Your task to perform on an android device: Do I have any events today? Image 0: 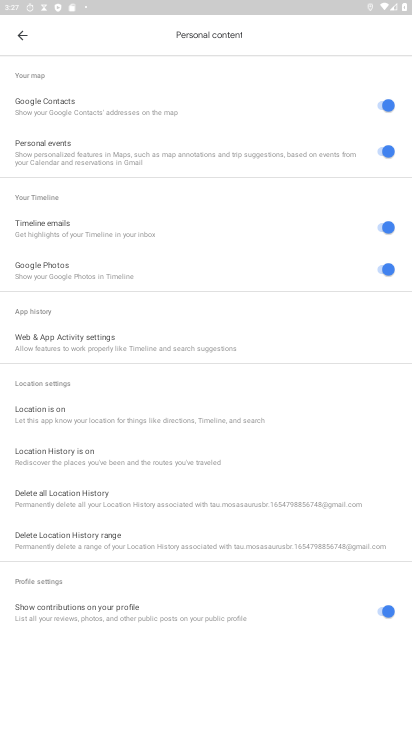
Step 0: press home button
Your task to perform on an android device: Do I have any events today? Image 1: 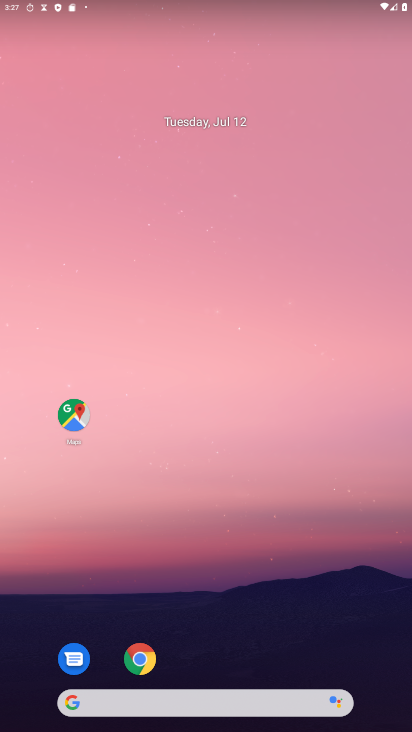
Step 1: drag from (261, 662) to (175, 181)
Your task to perform on an android device: Do I have any events today? Image 2: 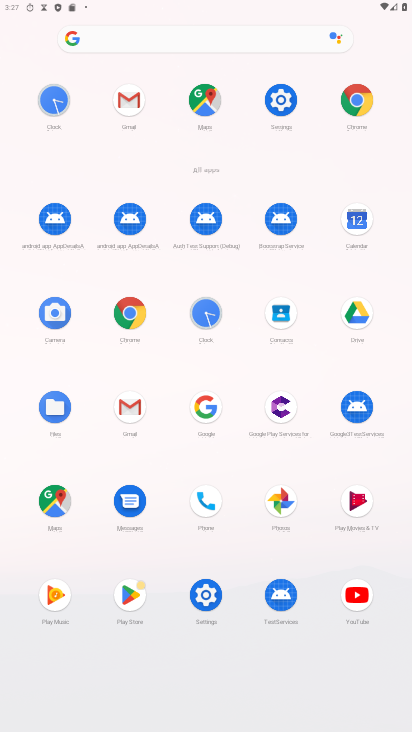
Step 2: click (364, 218)
Your task to perform on an android device: Do I have any events today? Image 3: 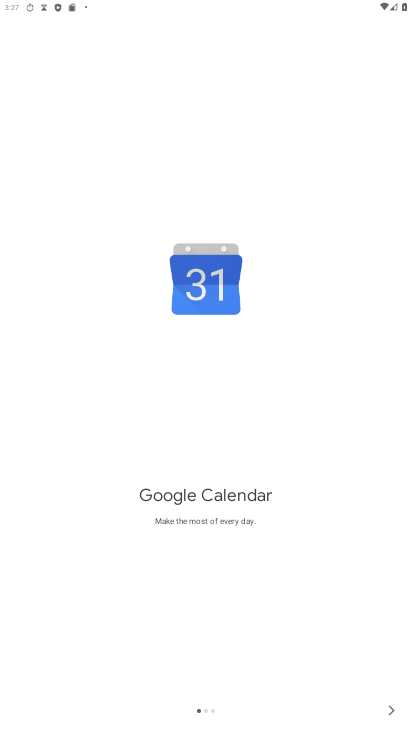
Step 3: click (390, 710)
Your task to perform on an android device: Do I have any events today? Image 4: 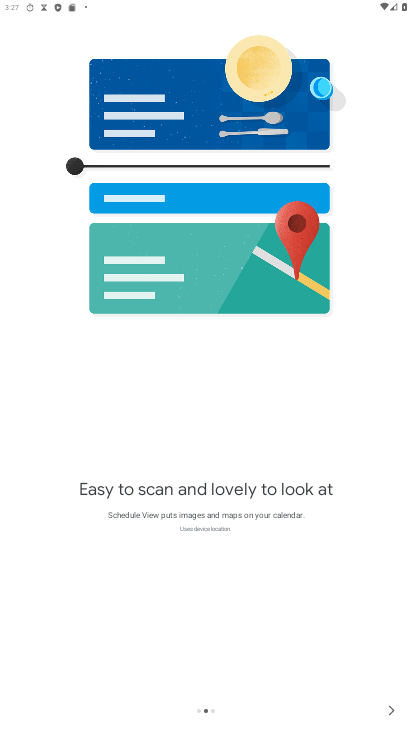
Step 4: click (390, 710)
Your task to perform on an android device: Do I have any events today? Image 5: 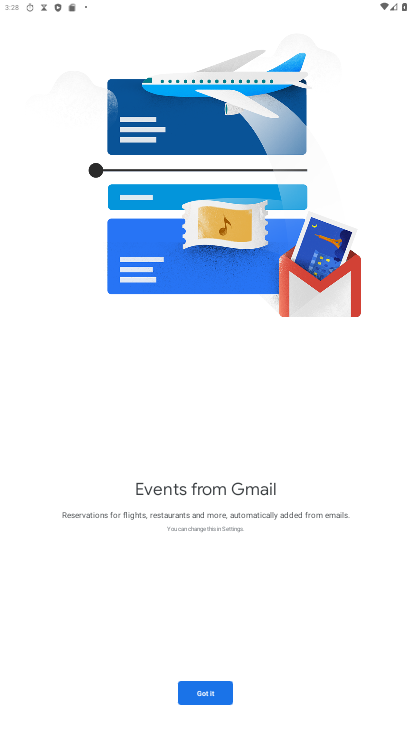
Step 5: click (204, 689)
Your task to perform on an android device: Do I have any events today? Image 6: 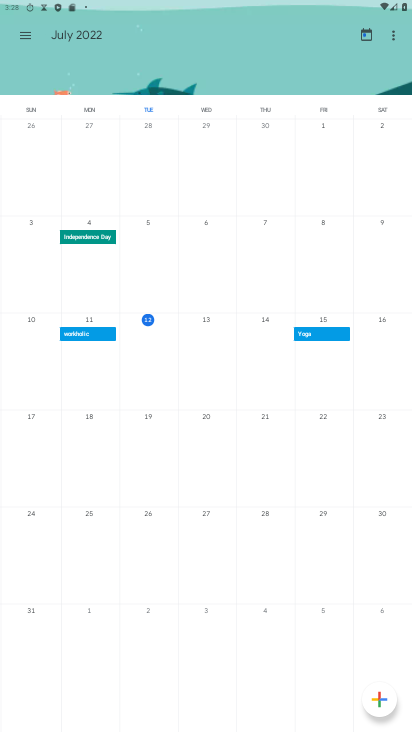
Step 6: click (27, 40)
Your task to perform on an android device: Do I have any events today? Image 7: 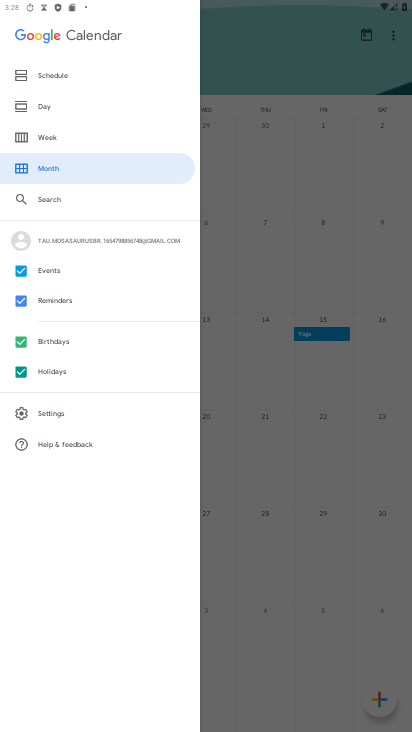
Step 7: click (18, 374)
Your task to perform on an android device: Do I have any events today? Image 8: 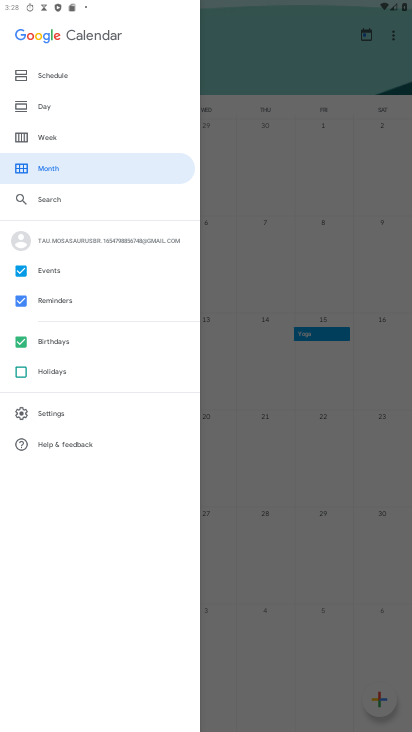
Step 8: click (20, 340)
Your task to perform on an android device: Do I have any events today? Image 9: 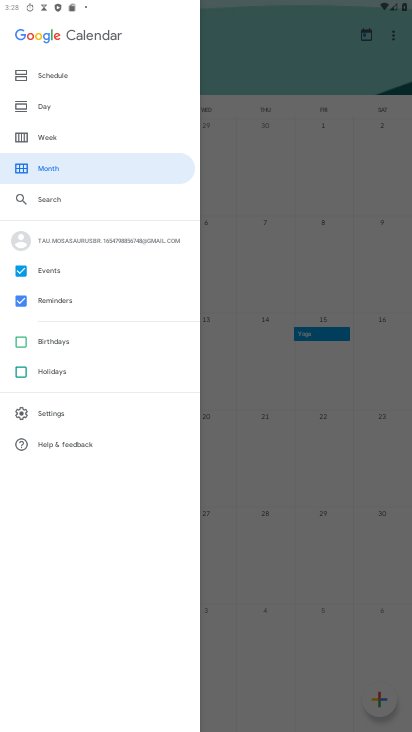
Step 9: click (20, 304)
Your task to perform on an android device: Do I have any events today? Image 10: 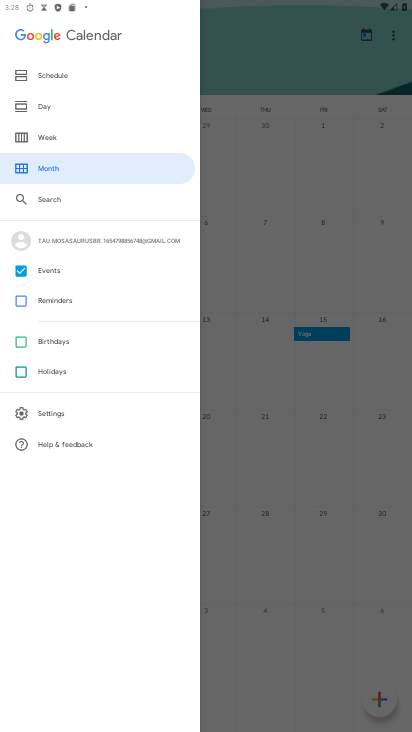
Step 10: click (39, 107)
Your task to perform on an android device: Do I have any events today? Image 11: 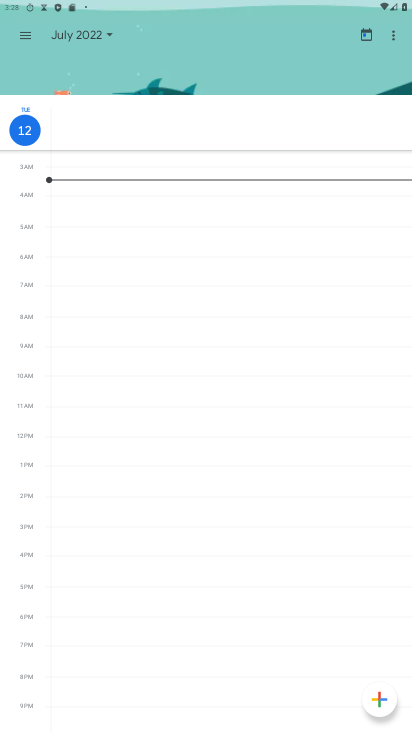
Step 11: task complete